Your task to perform on an android device: turn off airplane mode Image 0: 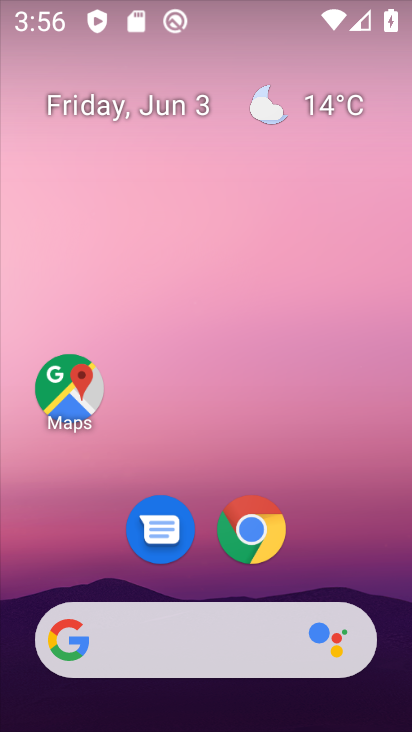
Step 0: drag from (356, 537) to (328, 37)
Your task to perform on an android device: turn off airplane mode Image 1: 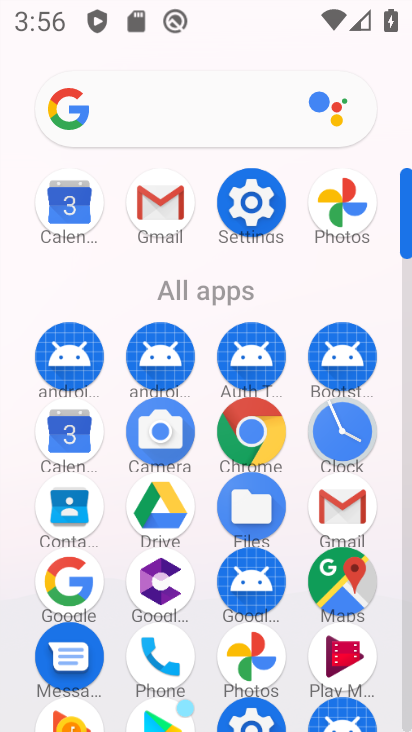
Step 1: click (270, 184)
Your task to perform on an android device: turn off airplane mode Image 2: 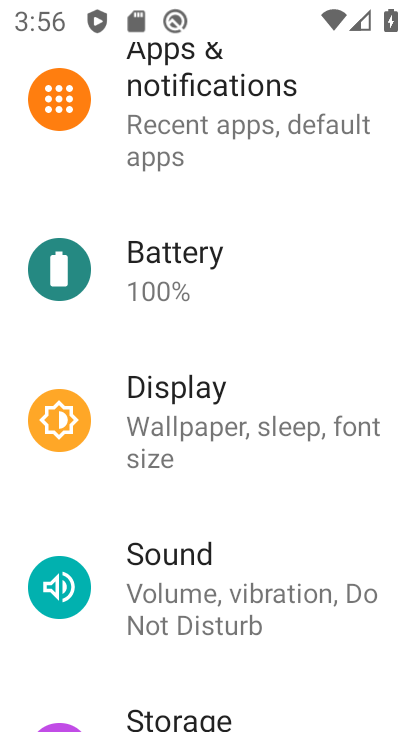
Step 2: drag from (270, 184) to (174, 620)
Your task to perform on an android device: turn off airplane mode Image 3: 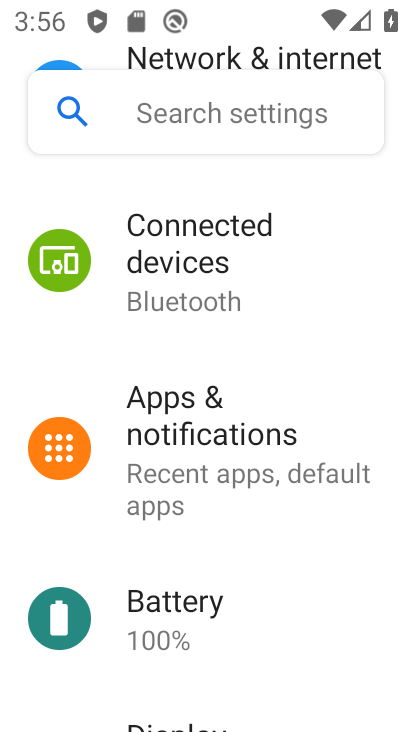
Step 3: drag from (266, 214) to (255, 605)
Your task to perform on an android device: turn off airplane mode Image 4: 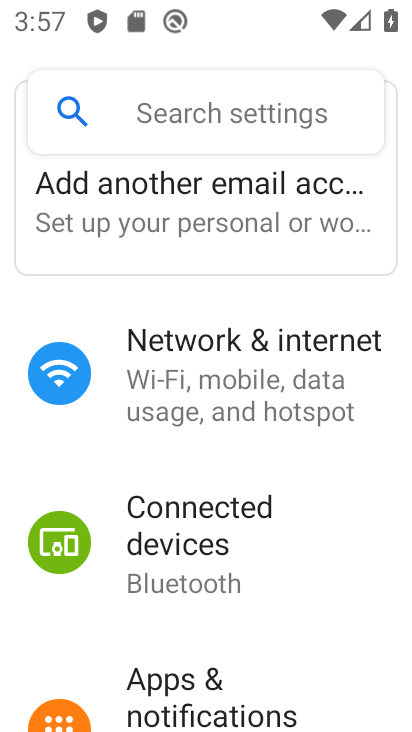
Step 4: click (278, 356)
Your task to perform on an android device: turn off airplane mode Image 5: 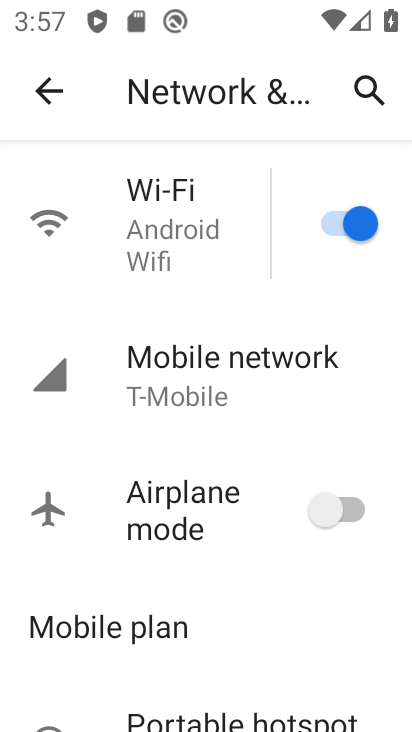
Step 5: task complete